Your task to perform on an android device: toggle improve location accuracy Image 0: 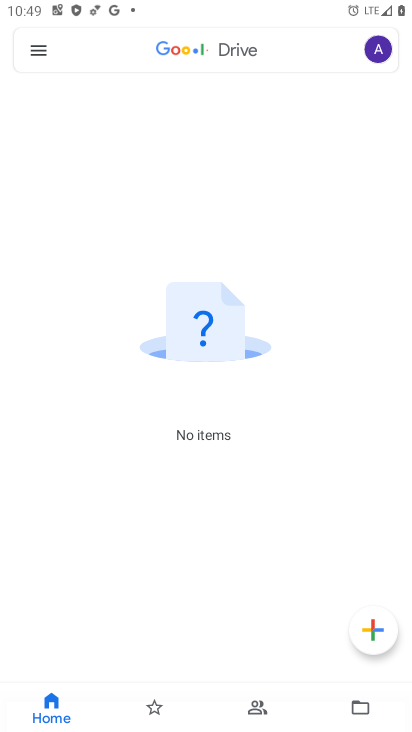
Step 0: click (199, 632)
Your task to perform on an android device: toggle improve location accuracy Image 1: 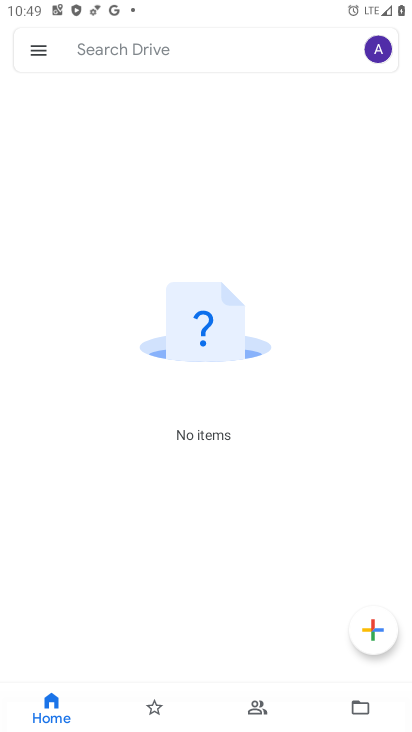
Step 1: press home button
Your task to perform on an android device: toggle improve location accuracy Image 2: 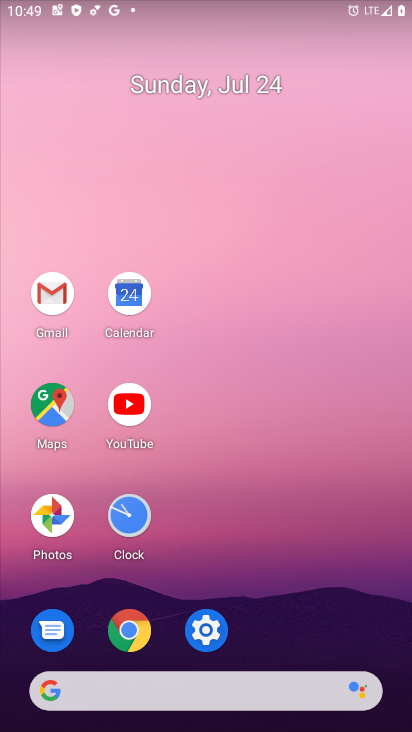
Step 2: click (211, 632)
Your task to perform on an android device: toggle improve location accuracy Image 3: 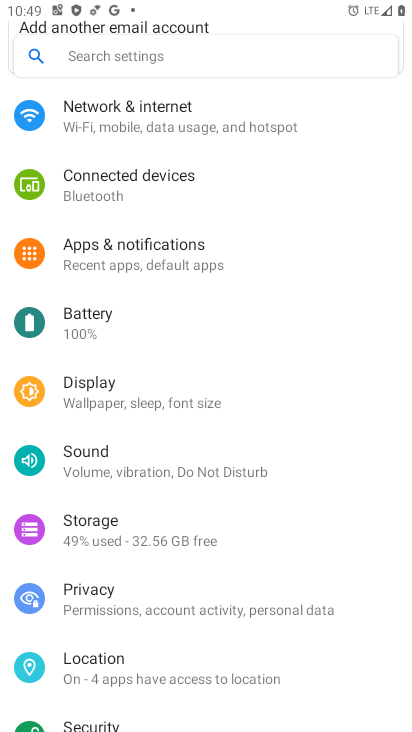
Step 3: click (98, 653)
Your task to perform on an android device: toggle improve location accuracy Image 4: 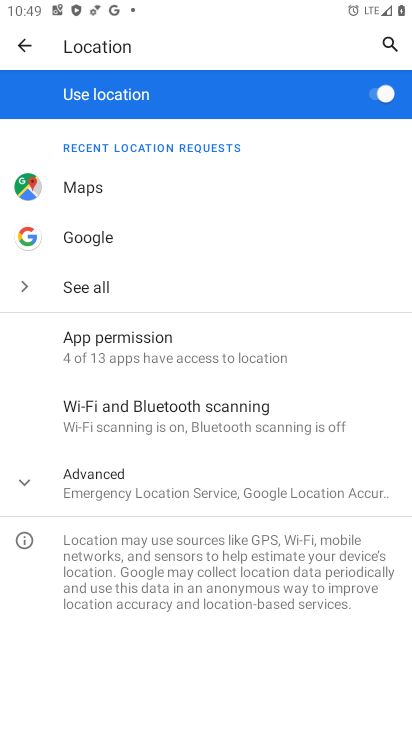
Step 4: click (19, 483)
Your task to perform on an android device: toggle improve location accuracy Image 5: 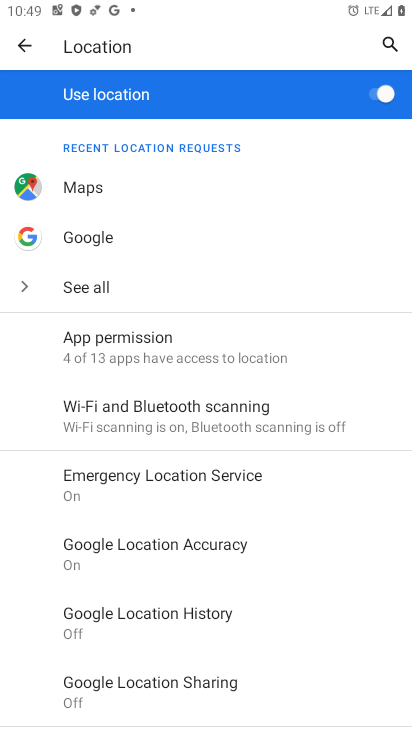
Step 5: click (146, 543)
Your task to perform on an android device: toggle improve location accuracy Image 6: 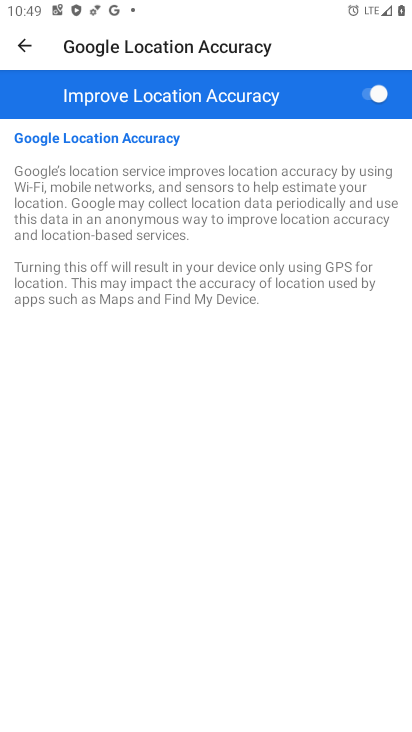
Step 6: click (371, 98)
Your task to perform on an android device: toggle improve location accuracy Image 7: 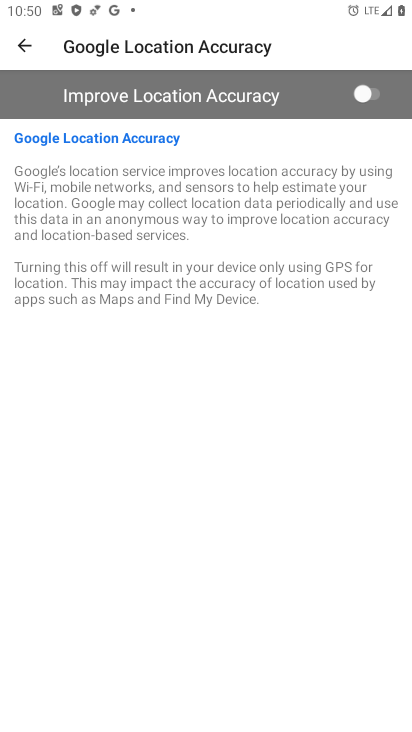
Step 7: task complete